Your task to perform on an android device: Go to internet settings Image 0: 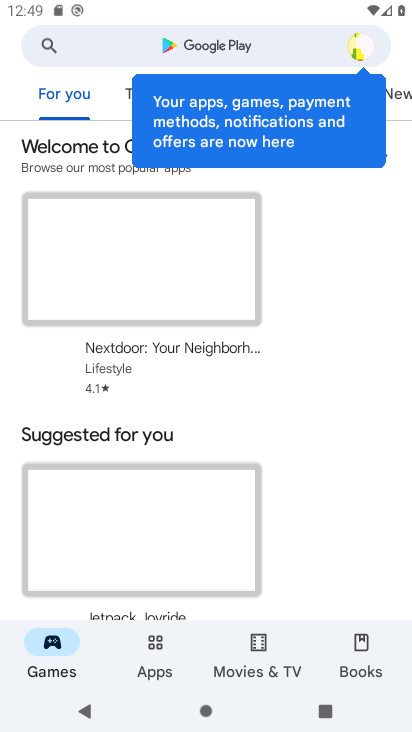
Step 0: press home button
Your task to perform on an android device: Go to internet settings Image 1: 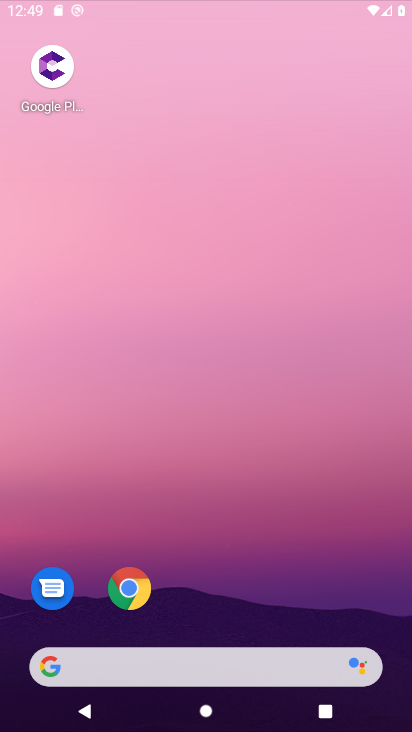
Step 1: drag from (224, 644) to (301, 14)
Your task to perform on an android device: Go to internet settings Image 2: 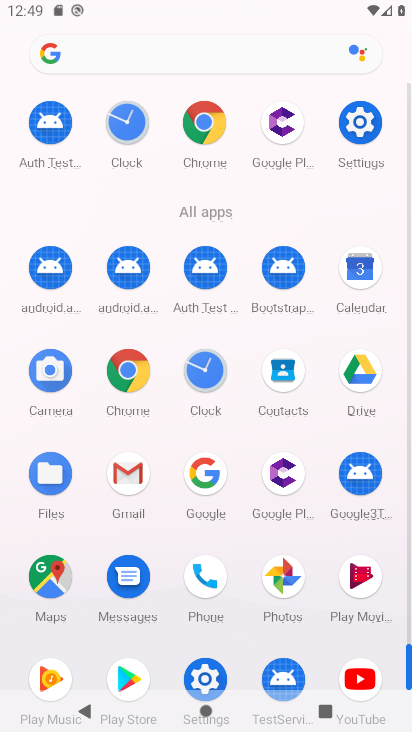
Step 2: click (358, 146)
Your task to perform on an android device: Go to internet settings Image 3: 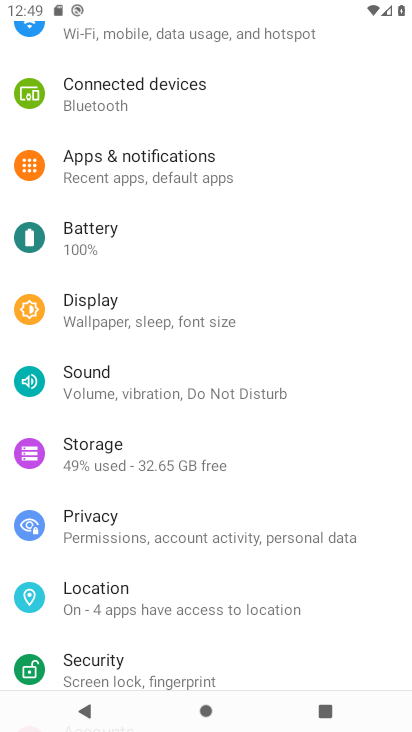
Step 3: drag from (204, 330) to (176, 521)
Your task to perform on an android device: Go to internet settings Image 4: 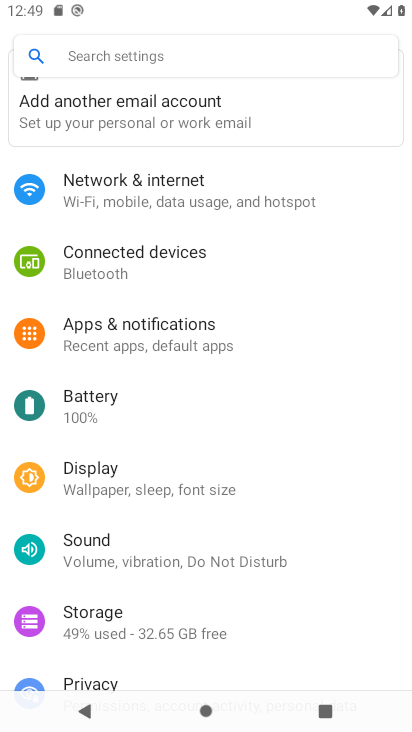
Step 4: click (234, 208)
Your task to perform on an android device: Go to internet settings Image 5: 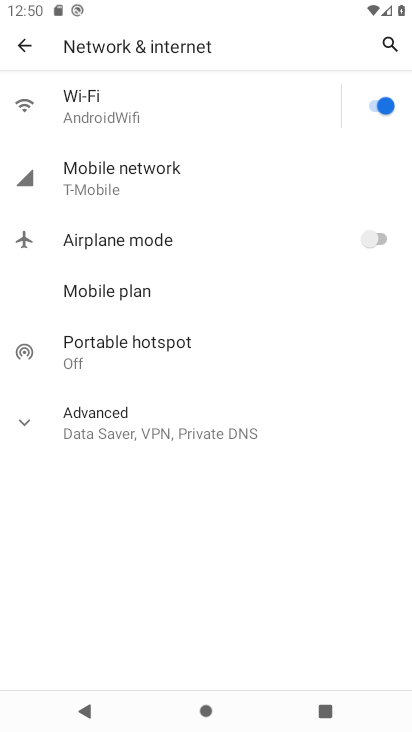
Step 5: click (172, 178)
Your task to perform on an android device: Go to internet settings Image 6: 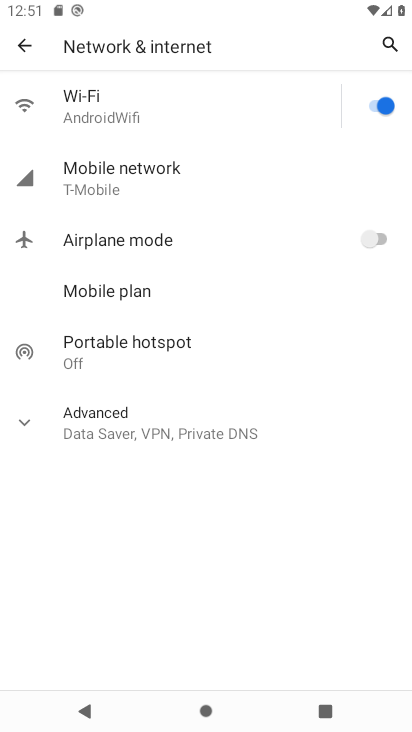
Step 6: click (163, 187)
Your task to perform on an android device: Go to internet settings Image 7: 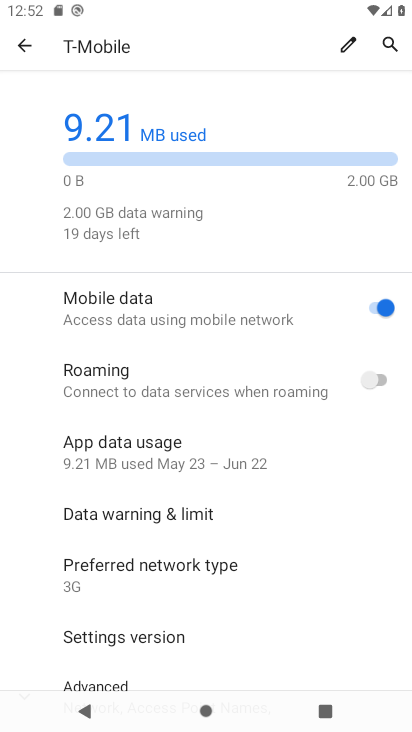
Step 7: task complete